Your task to perform on an android device: empty trash in the gmail app Image 0: 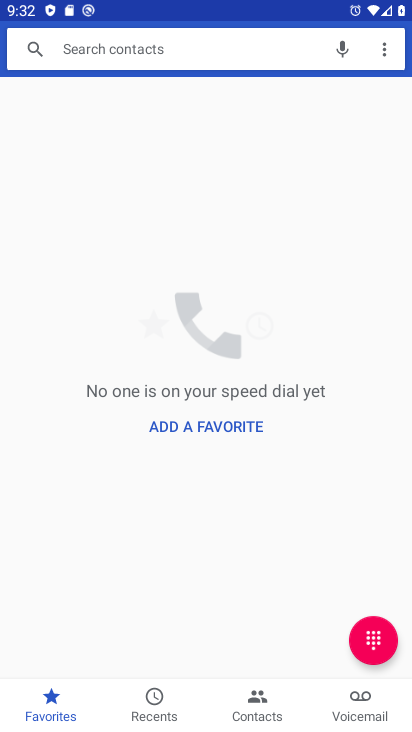
Step 0: press home button
Your task to perform on an android device: empty trash in the gmail app Image 1: 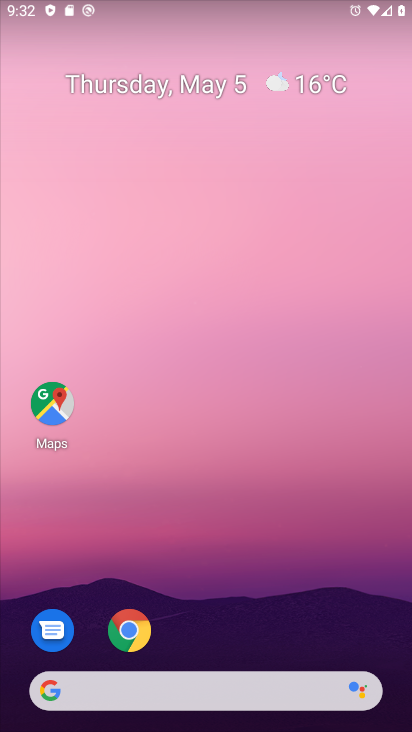
Step 1: drag from (312, 612) to (302, 266)
Your task to perform on an android device: empty trash in the gmail app Image 2: 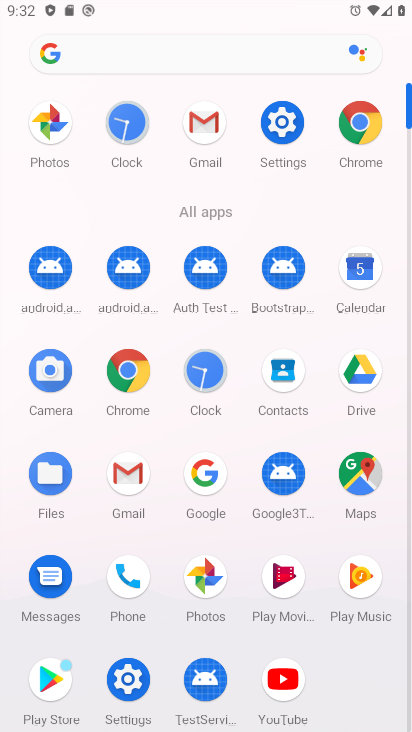
Step 2: click (211, 126)
Your task to perform on an android device: empty trash in the gmail app Image 3: 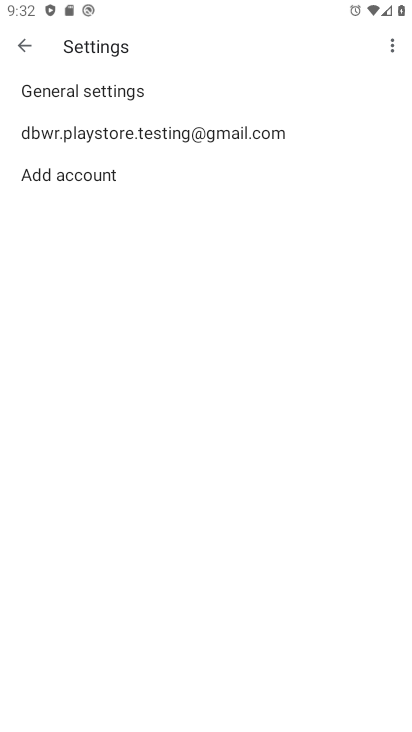
Step 3: press back button
Your task to perform on an android device: empty trash in the gmail app Image 4: 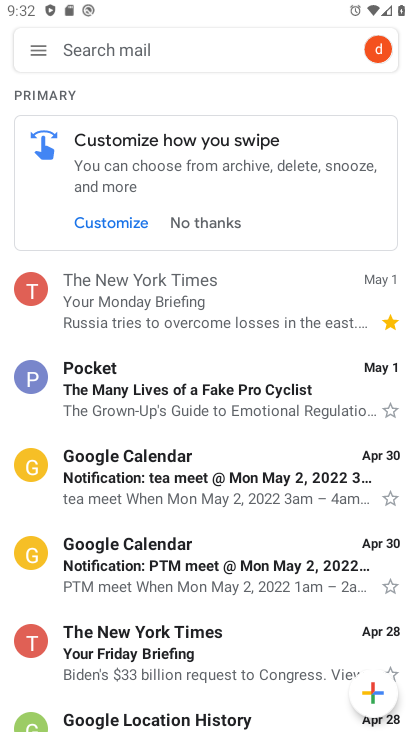
Step 4: click (36, 50)
Your task to perform on an android device: empty trash in the gmail app Image 5: 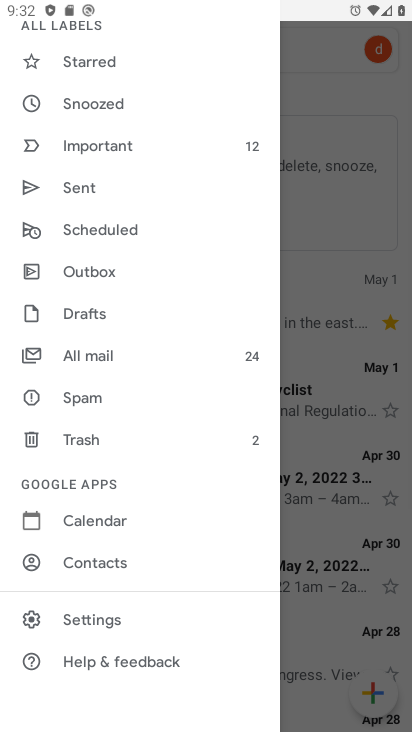
Step 5: click (108, 446)
Your task to perform on an android device: empty trash in the gmail app Image 6: 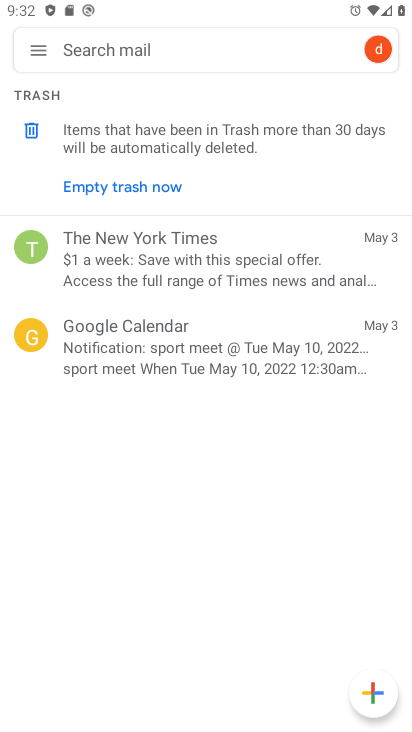
Step 6: click (95, 186)
Your task to perform on an android device: empty trash in the gmail app Image 7: 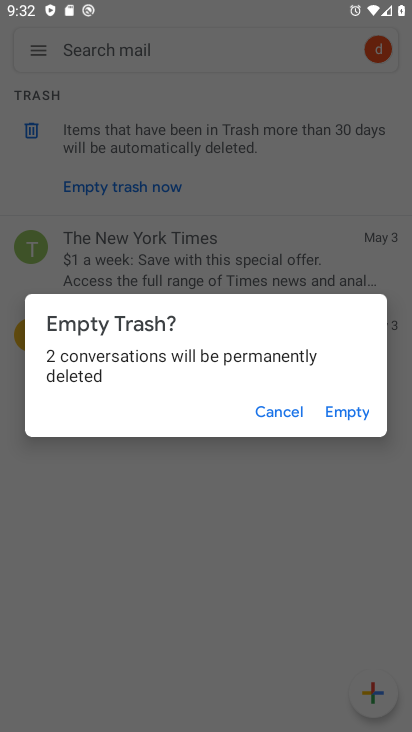
Step 7: click (346, 414)
Your task to perform on an android device: empty trash in the gmail app Image 8: 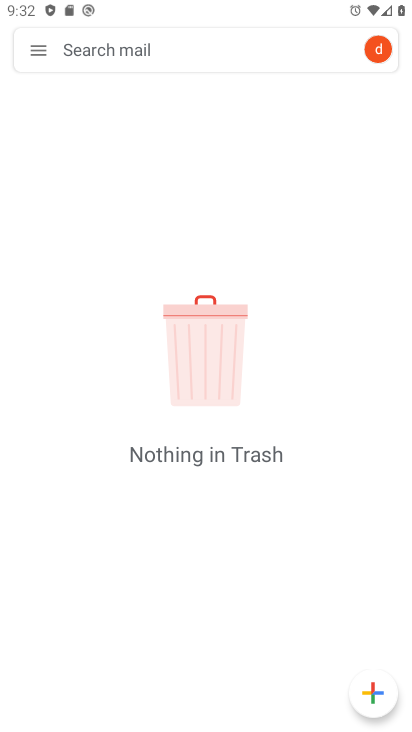
Step 8: task complete